Your task to perform on an android device: Open the map Image 0: 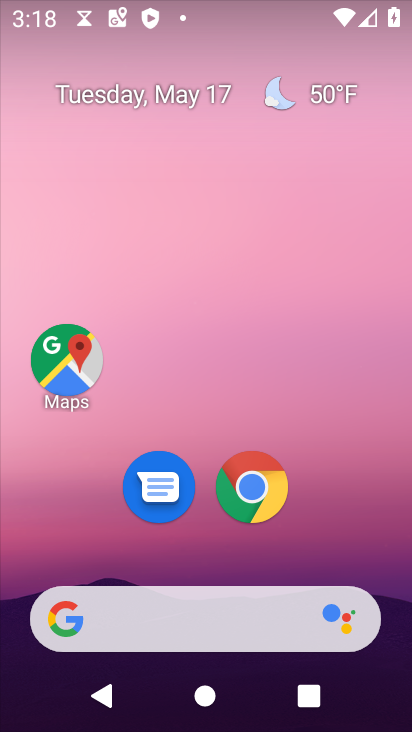
Step 0: click (66, 359)
Your task to perform on an android device: Open the map Image 1: 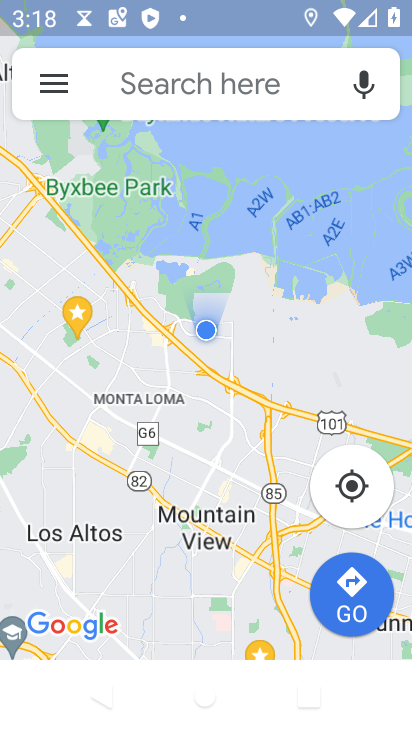
Step 1: task complete